Your task to perform on an android device: Is it going to rain today? Image 0: 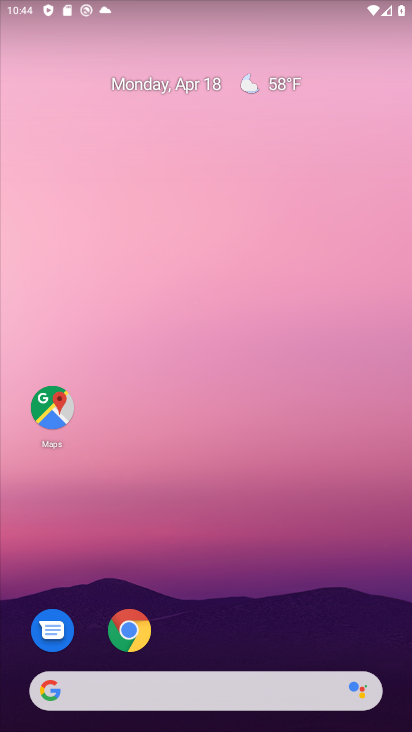
Step 0: drag from (237, 641) to (238, 149)
Your task to perform on an android device: Is it going to rain today? Image 1: 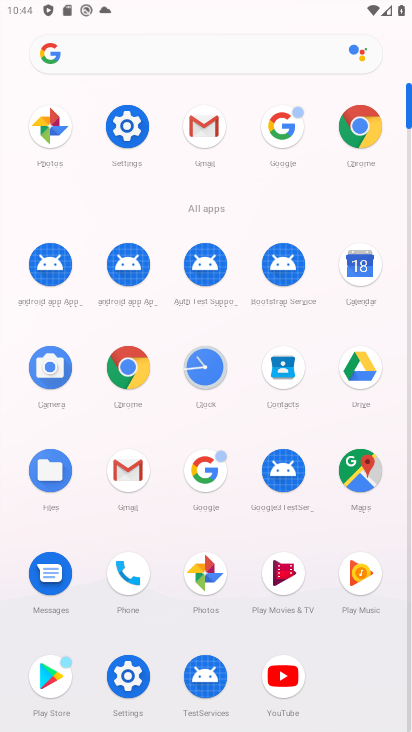
Step 1: click (280, 128)
Your task to perform on an android device: Is it going to rain today? Image 2: 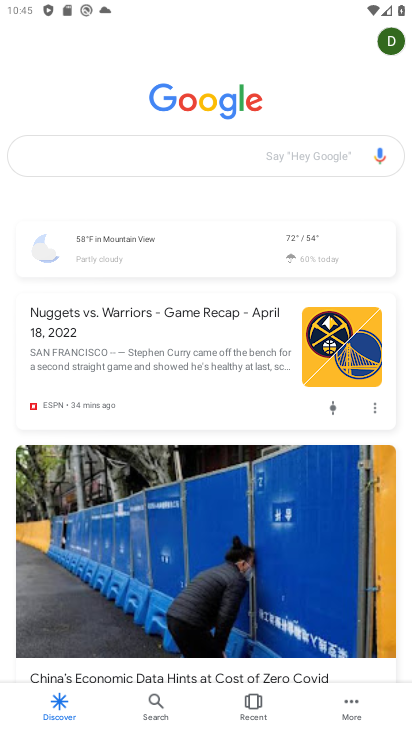
Step 2: click (93, 243)
Your task to perform on an android device: Is it going to rain today? Image 3: 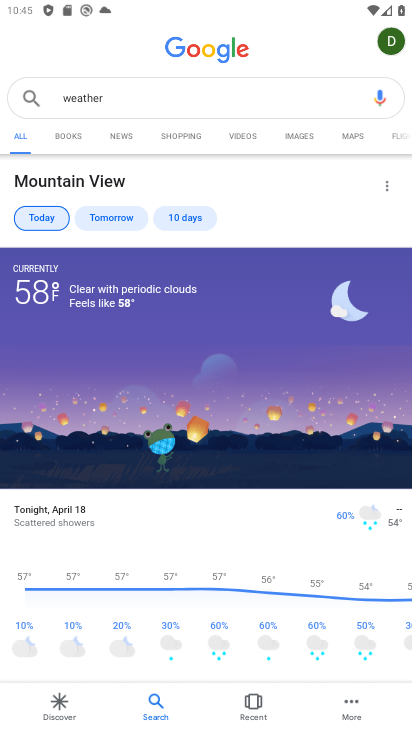
Step 3: task complete